Your task to perform on an android device: search for starred emails in the gmail app Image 0: 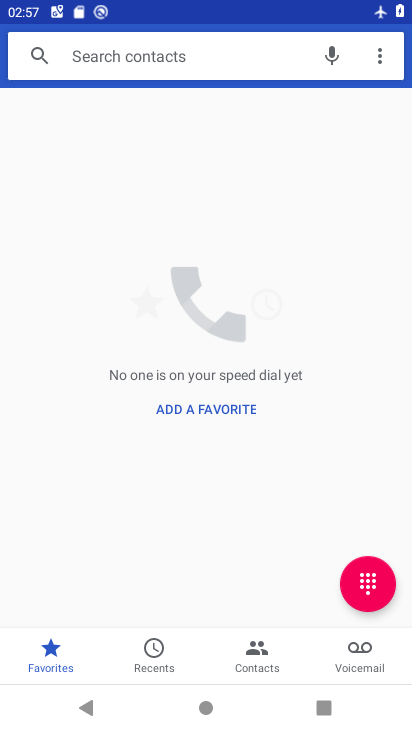
Step 0: press home button
Your task to perform on an android device: search for starred emails in the gmail app Image 1: 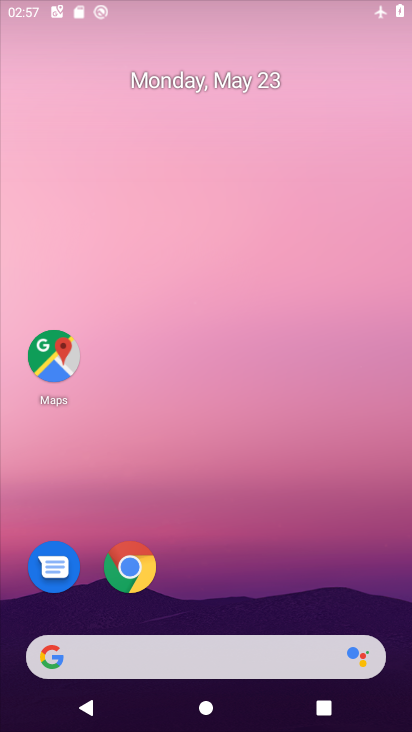
Step 1: drag from (315, 597) to (254, 232)
Your task to perform on an android device: search for starred emails in the gmail app Image 2: 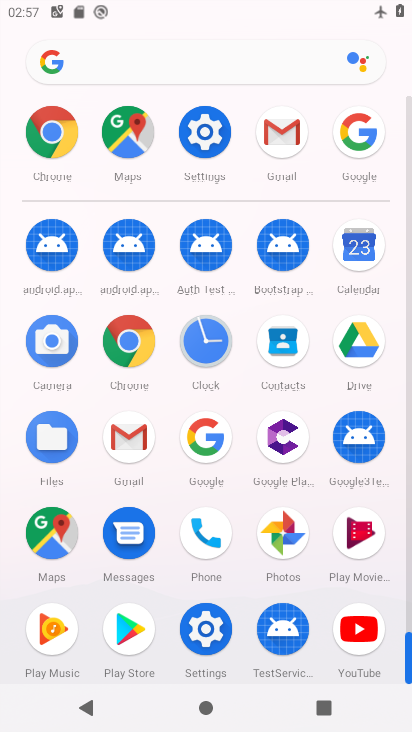
Step 2: click (117, 447)
Your task to perform on an android device: search for starred emails in the gmail app Image 3: 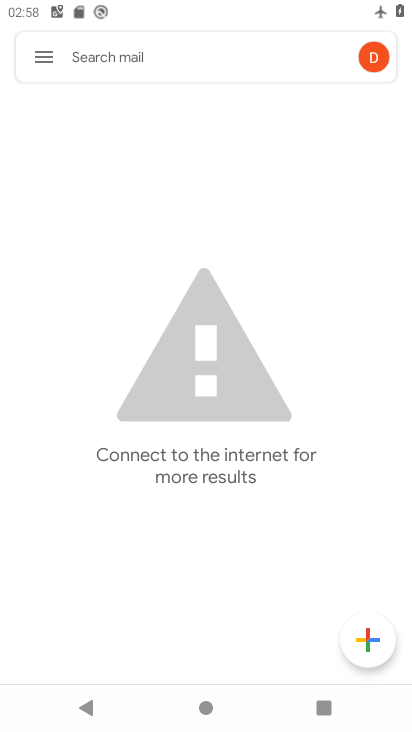
Step 3: task complete